Your task to perform on an android device: Show me productivity apps on the Play Store Image 0: 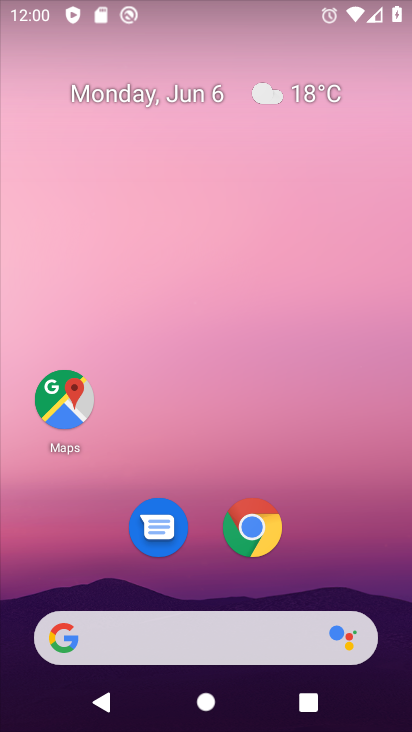
Step 0: drag from (223, 608) to (107, 23)
Your task to perform on an android device: Show me productivity apps on the Play Store Image 1: 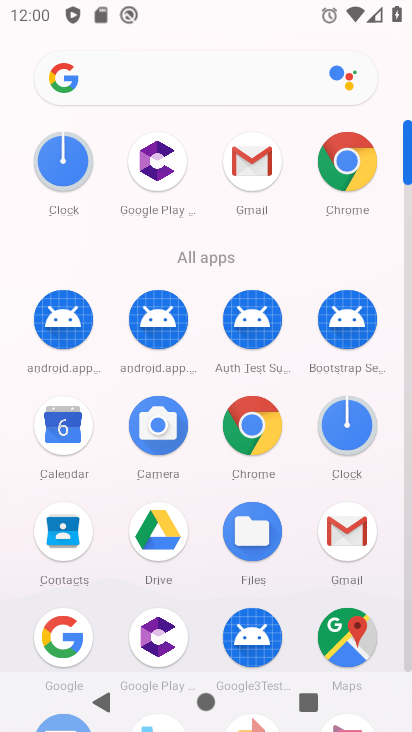
Step 1: drag from (108, 601) to (108, 128)
Your task to perform on an android device: Show me productivity apps on the Play Store Image 2: 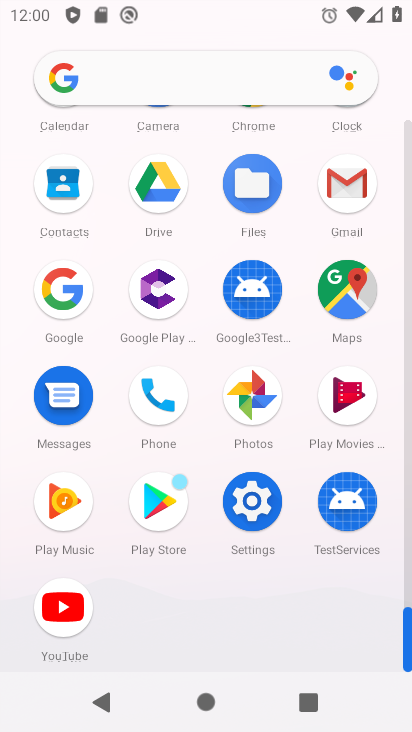
Step 2: click (158, 510)
Your task to perform on an android device: Show me productivity apps on the Play Store Image 3: 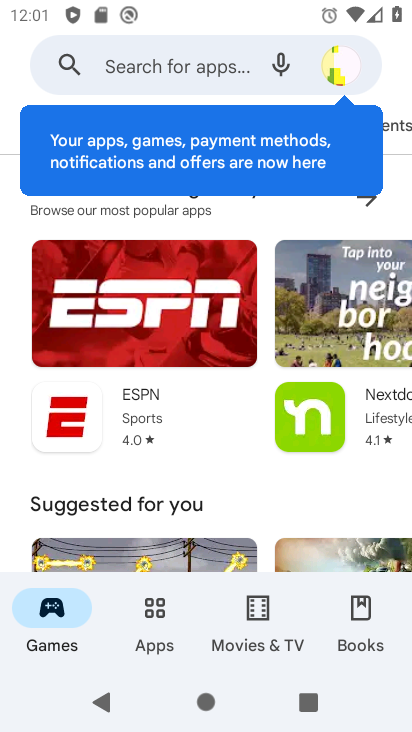
Step 3: drag from (180, 533) to (163, 186)
Your task to perform on an android device: Show me productivity apps on the Play Store Image 4: 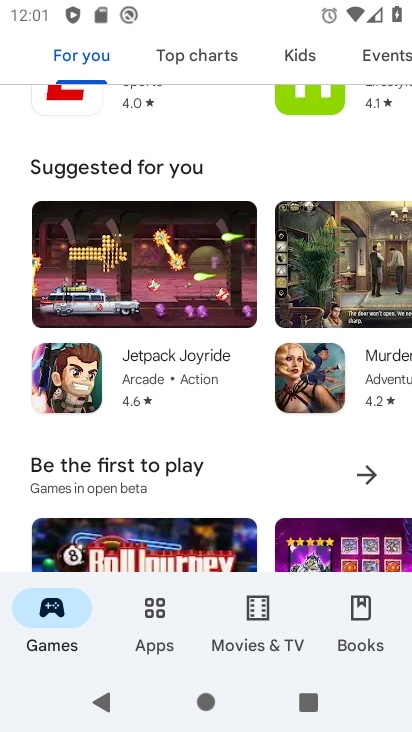
Step 4: click (153, 632)
Your task to perform on an android device: Show me productivity apps on the Play Store Image 5: 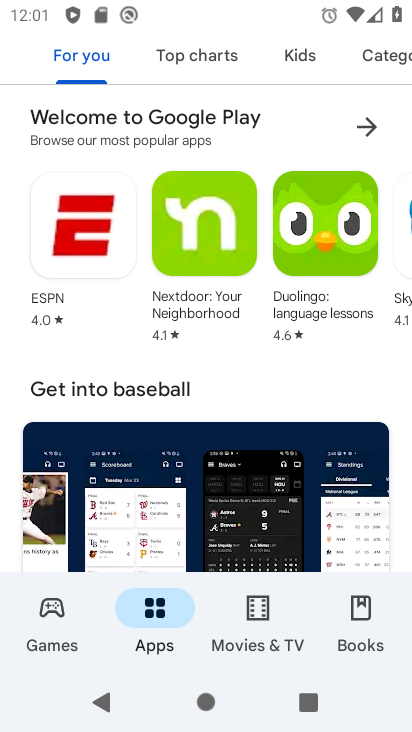
Step 5: drag from (225, 483) to (217, 306)
Your task to perform on an android device: Show me productivity apps on the Play Store Image 6: 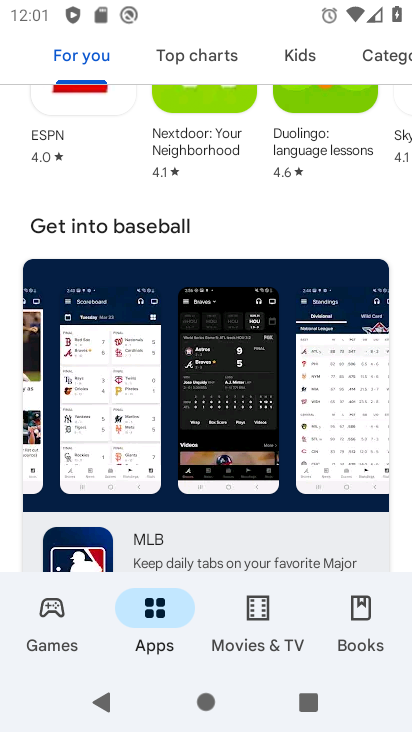
Step 6: drag from (338, 51) to (27, 19)
Your task to perform on an android device: Show me productivity apps on the Play Store Image 7: 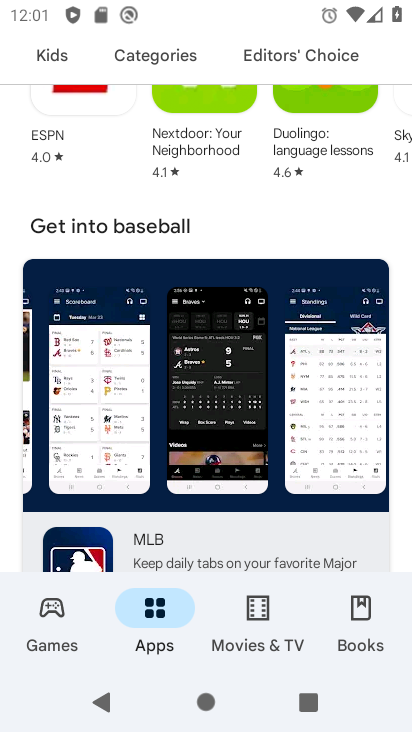
Step 7: click (160, 54)
Your task to perform on an android device: Show me productivity apps on the Play Store Image 8: 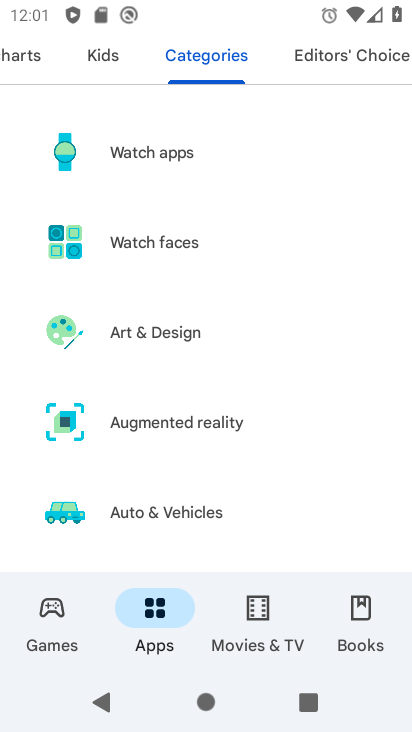
Step 8: drag from (201, 482) to (201, 52)
Your task to perform on an android device: Show me productivity apps on the Play Store Image 9: 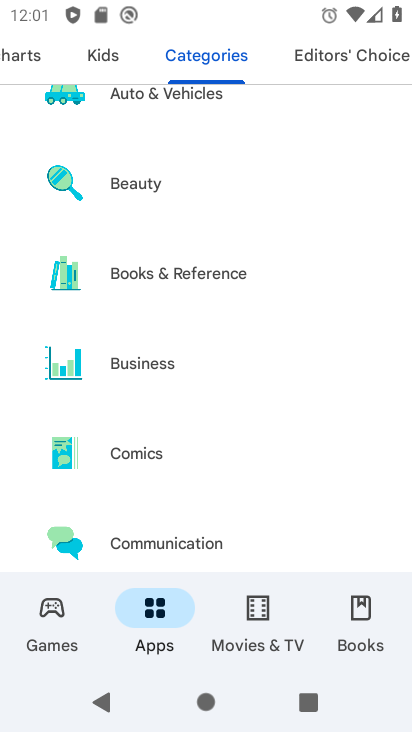
Step 9: drag from (165, 533) to (171, 110)
Your task to perform on an android device: Show me productivity apps on the Play Store Image 10: 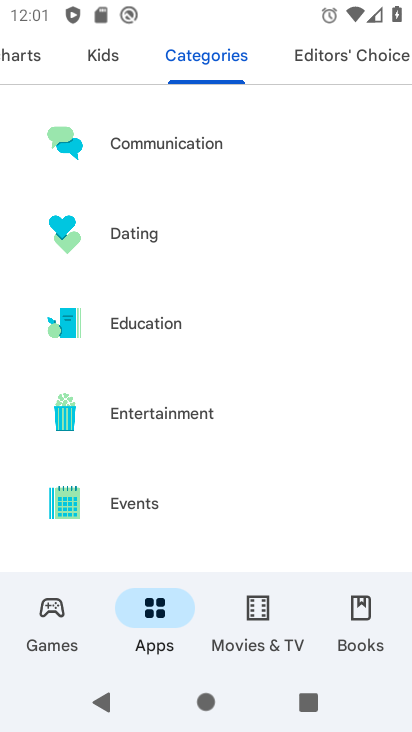
Step 10: drag from (231, 504) to (284, 174)
Your task to perform on an android device: Show me productivity apps on the Play Store Image 11: 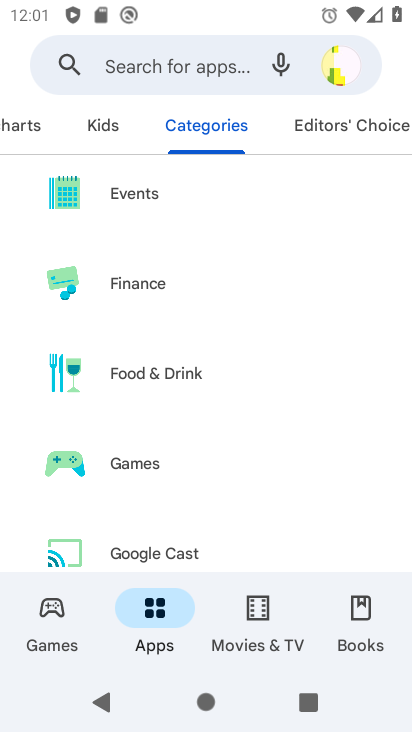
Step 11: drag from (244, 421) to (222, 22)
Your task to perform on an android device: Show me productivity apps on the Play Store Image 12: 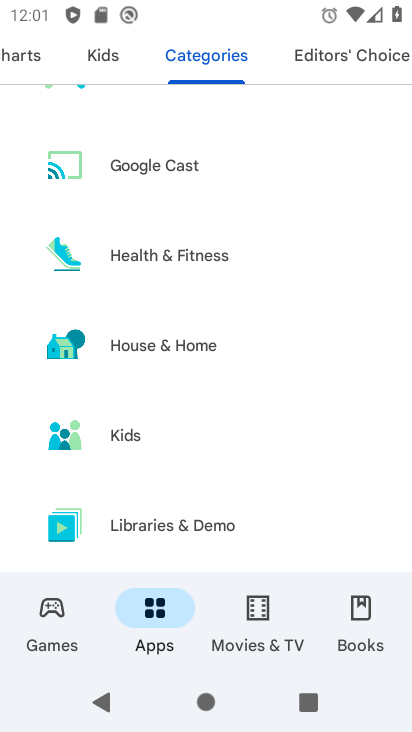
Step 12: drag from (237, 495) to (238, 58)
Your task to perform on an android device: Show me productivity apps on the Play Store Image 13: 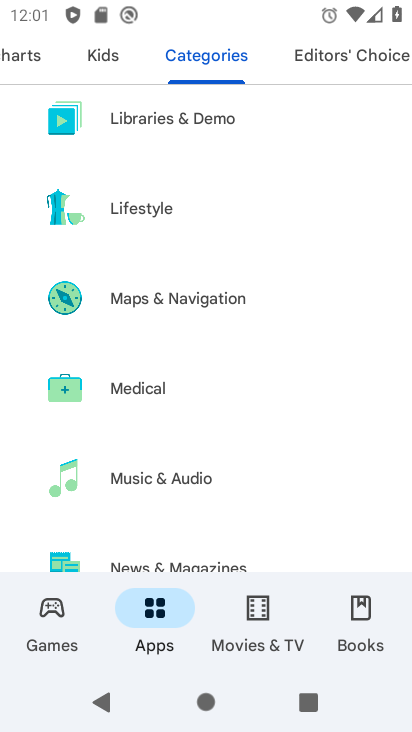
Step 13: drag from (200, 520) to (189, 32)
Your task to perform on an android device: Show me productivity apps on the Play Store Image 14: 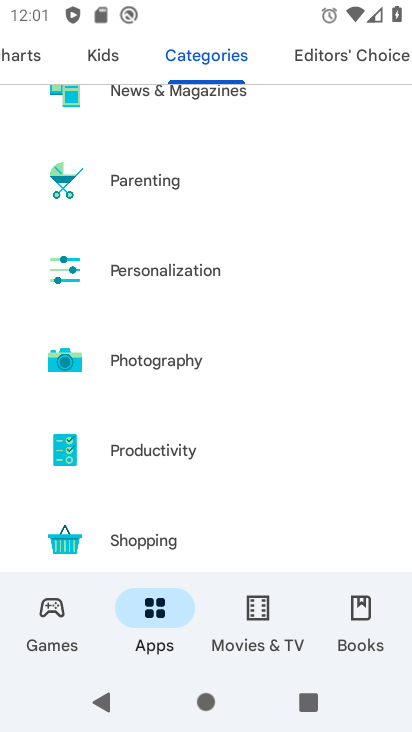
Step 14: click (184, 452)
Your task to perform on an android device: Show me productivity apps on the Play Store Image 15: 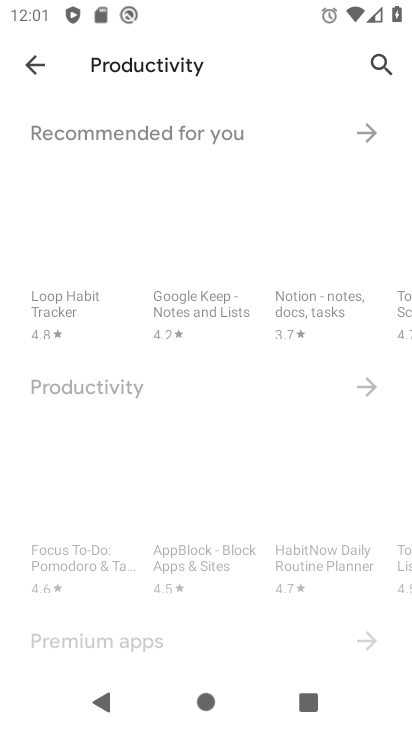
Step 15: task complete